Your task to perform on an android device: Go to CNN.com Image 0: 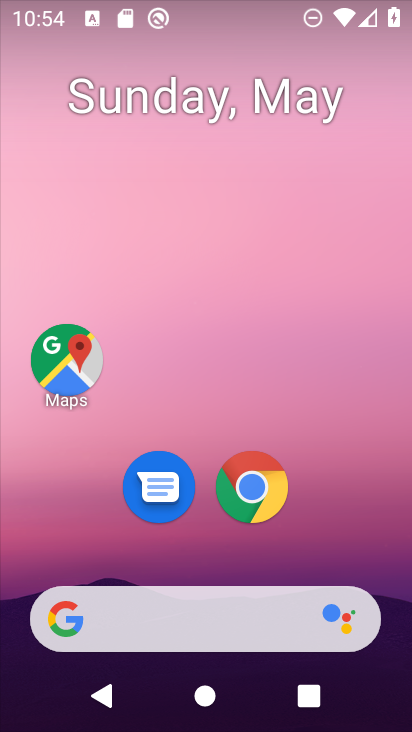
Step 0: drag from (272, 663) to (238, 266)
Your task to perform on an android device: Go to CNN.com Image 1: 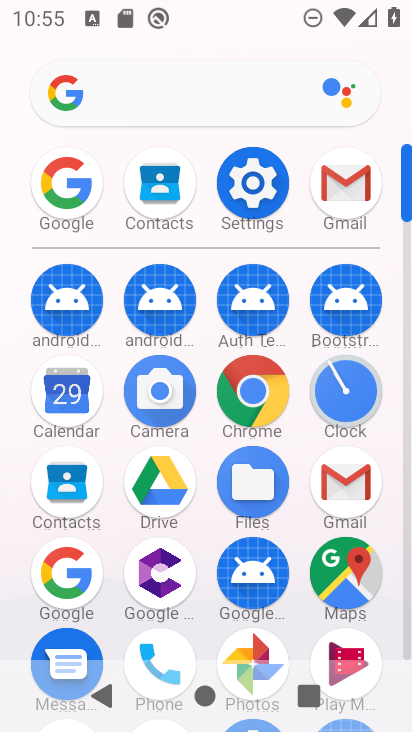
Step 1: click (251, 415)
Your task to perform on an android device: Go to CNN.com Image 2: 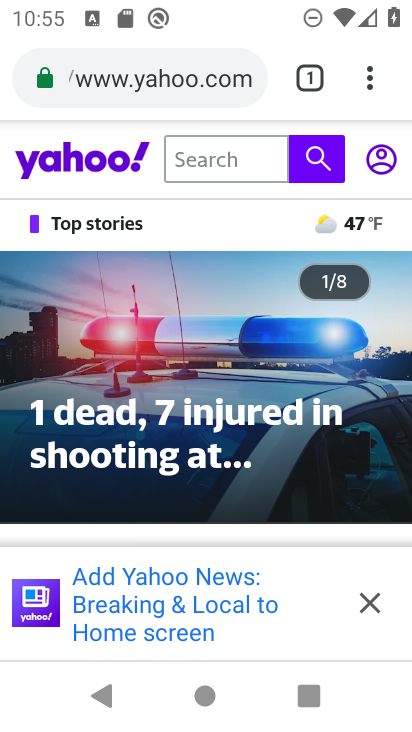
Step 2: click (225, 92)
Your task to perform on an android device: Go to CNN.com Image 3: 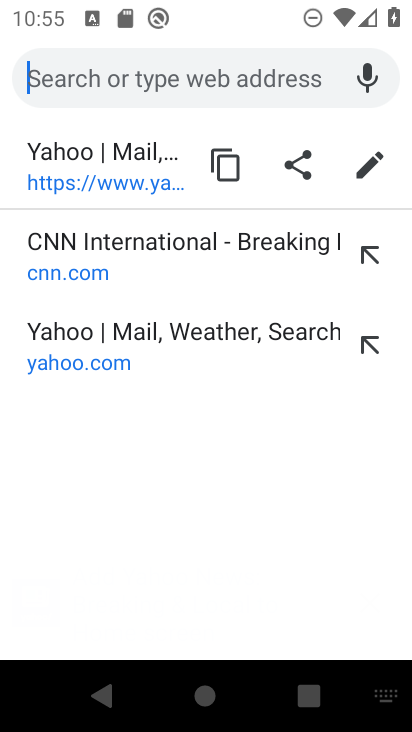
Step 3: type "cnn"
Your task to perform on an android device: Go to CNN.com Image 4: 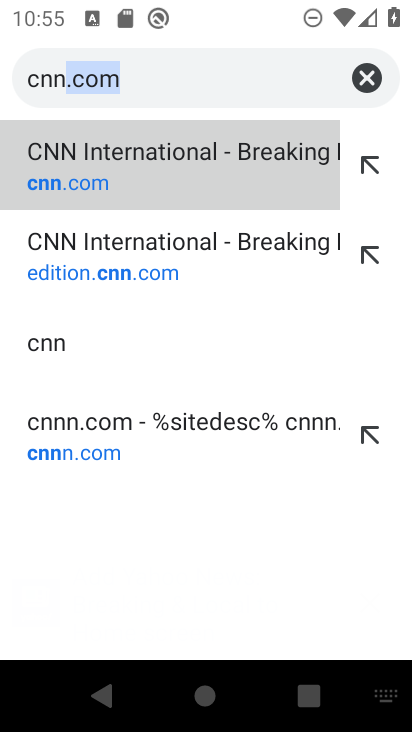
Step 4: click (257, 167)
Your task to perform on an android device: Go to CNN.com Image 5: 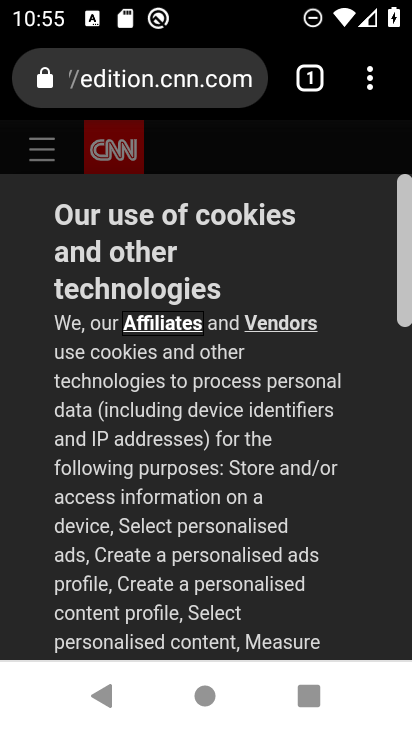
Step 5: task complete